Your task to perform on an android device: turn off smart reply in the gmail app Image 0: 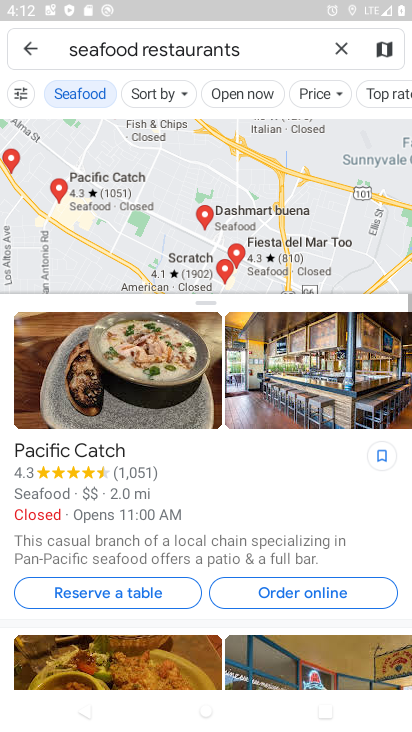
Step 0: click (65, 384)
Your task to perform on an android device: turn off smart reply in the gmail app Image 1: 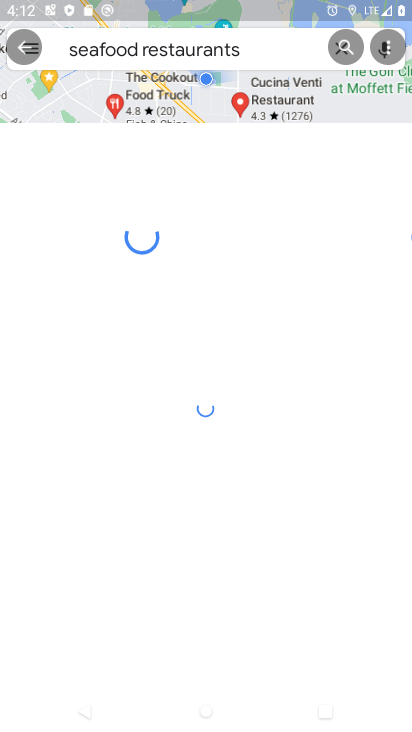
Step 1: task complete